Your task to perform on an android device: Turn off the flashlight Image 0: 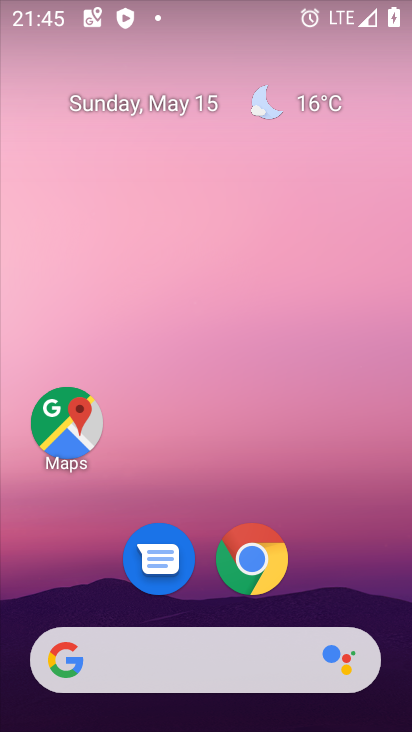
Step 0: drag from (248, 456) to (160, 66)
Your task to perform on an android device: Turn off the flashlight Image 1: 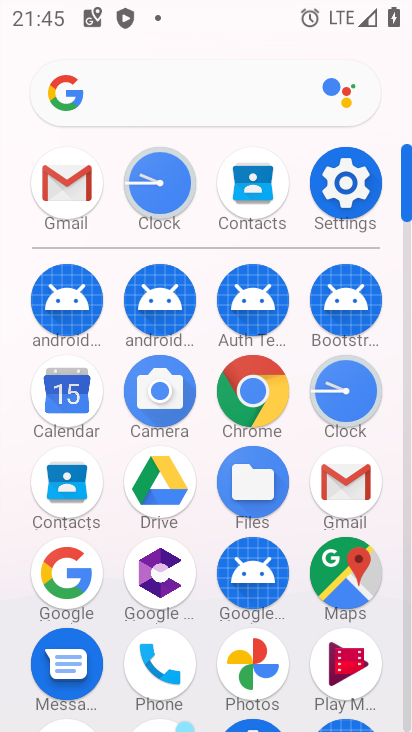
Step 1: click (335, 192)
Your task to perform on an android device: Turn off the flashlight Image 2: 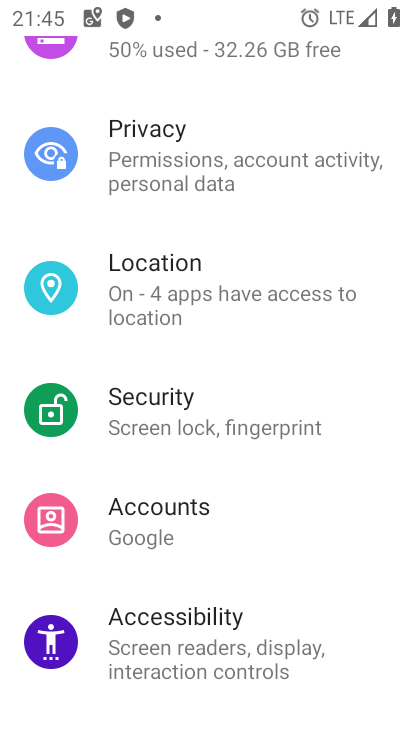
Step 2: task complete